Your task to perform on an android device: Find coffee shops on Maps Image 0: 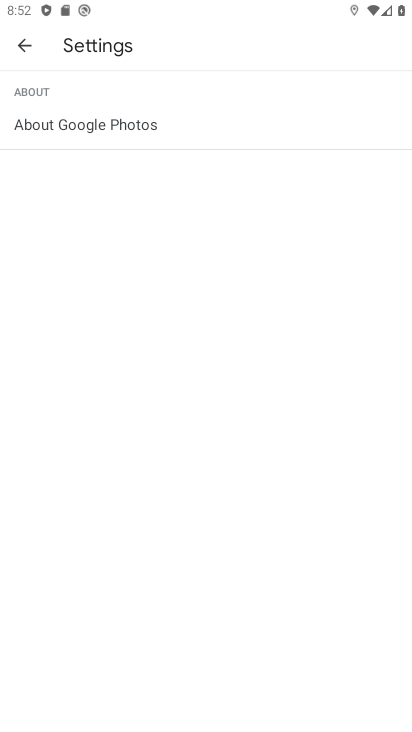
Step 0: press home button
Your task to perform on an android device: Find coffee shops on Maps Image 1: 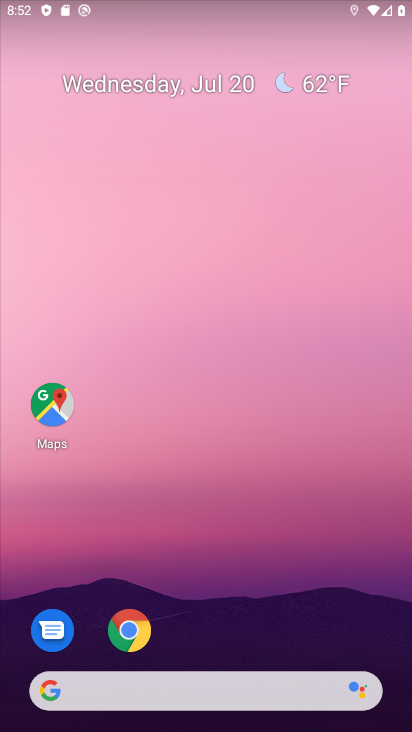
Step 1: click (38, 392)
Your task to perform on an android device: Find coffee shops on Maps Image 2: 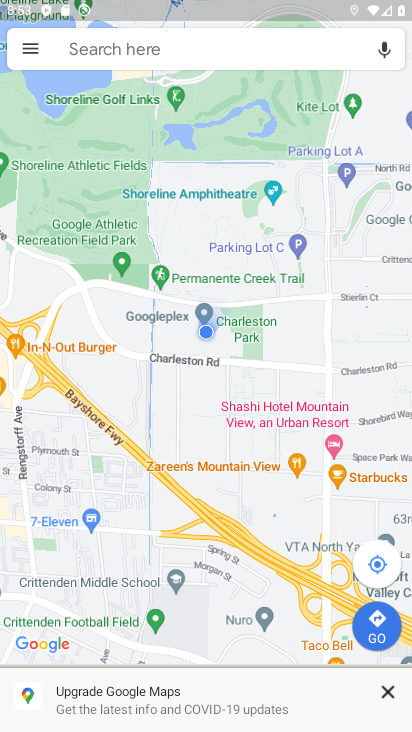
Step 2: click (156, 55)
Your task to perform on an android device: Find coffee shops on Maps Image 3: 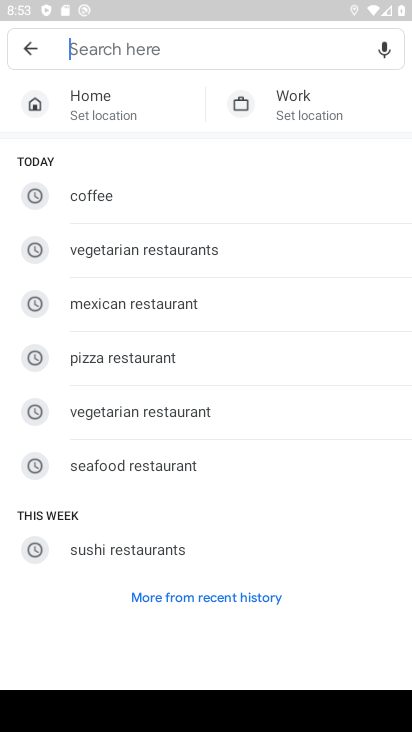
Step 3: type "coffee shops"
Your task to perform on an android device: Find coffee shops on Maps Image 4: 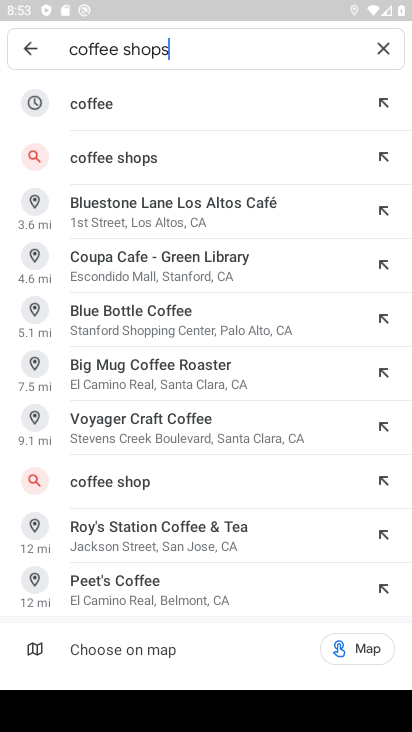
Step 4: click (106, 159)
Your task to perform on an android device: Find coffee shops on Maps Image 5: 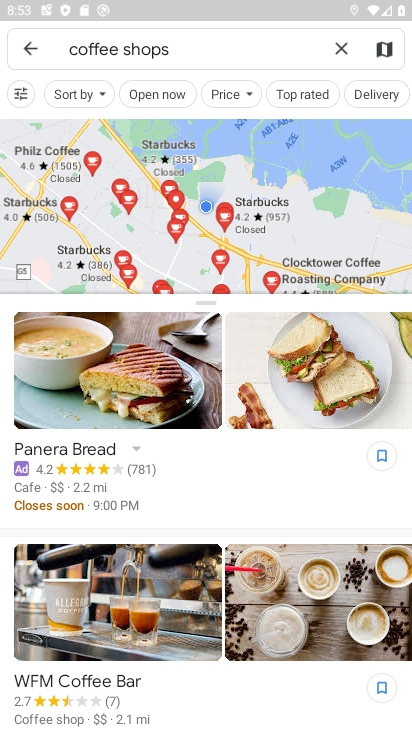
Step 5: task complete